Your task to perform on an android device: allow notifications from all sites in the chrome app Image 0: 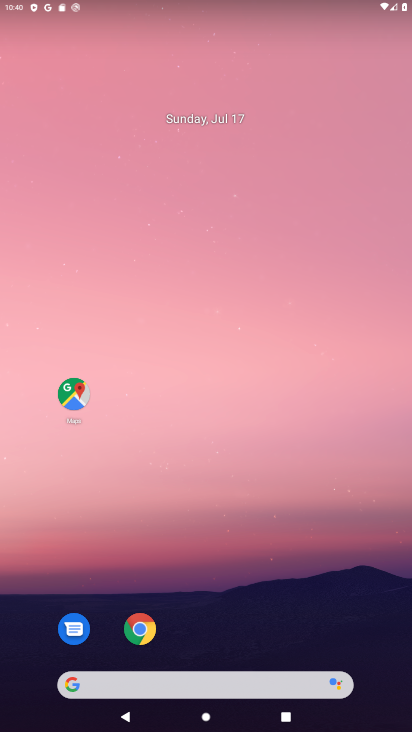
Step 0: drag from (236, 664) to (193, 191)
Your task to perform on an android device: allow notifications from all sites in the chrome app Image 1: 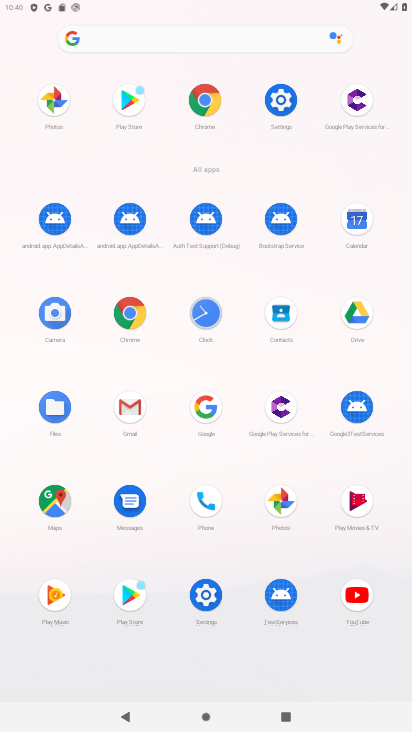
Step 1: click (203, 99)
Your task to perform on an android device: allow notifications from all sites in the chrome app Image 2: 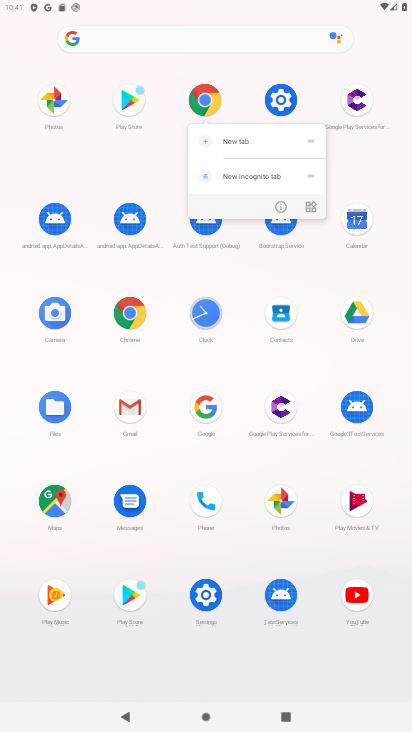
Step 2: click (207, 94)
Your task to perform on an android device: allow notifications from all sites in the chrome app Image 3: 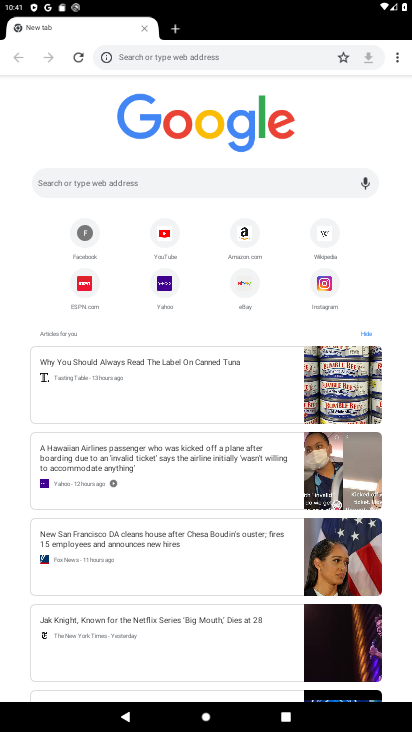
Step 3: click (393, 56)
Your task to perform on an android device: allow notifications from all sites in the chrome app Image 4: 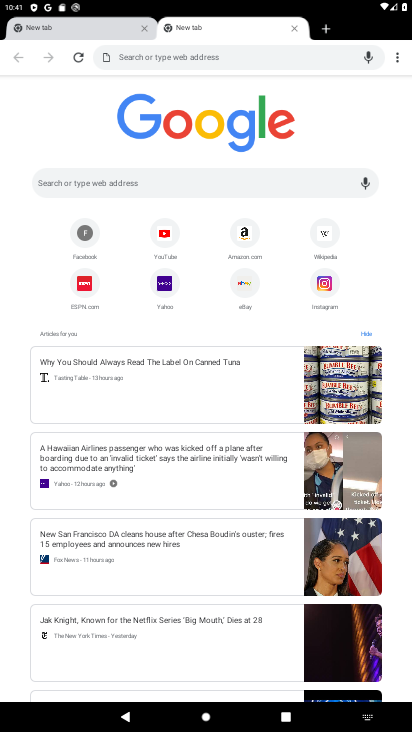
Step 4: click (396, 52)
Your task to perform on an android device: allow notifications from all sites in the chrome app Image 5: 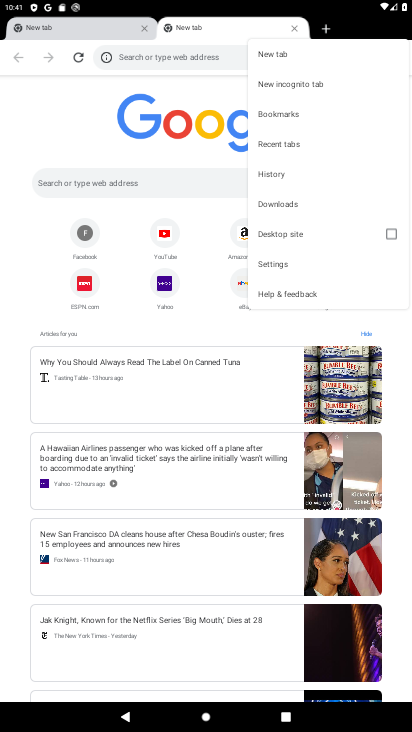
Step 5: click (282, 267)
Your task to perform on an android device: allow notifications from all sites in the chrome app Image 6: 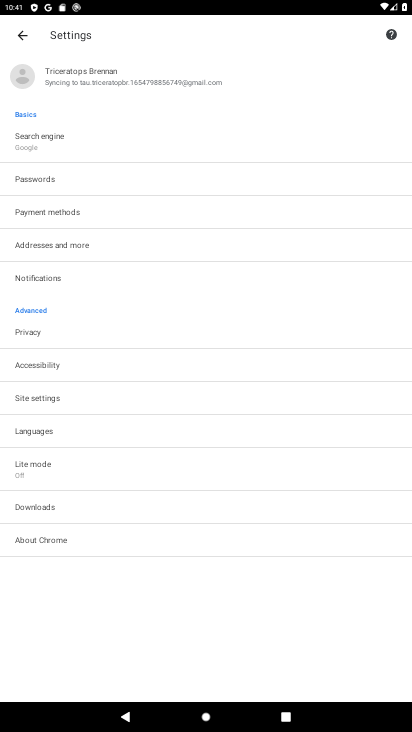
Step 6: click (29, 392)
Your task to perform on an android device: allow notifications from all sites in the chrome app Image 7: 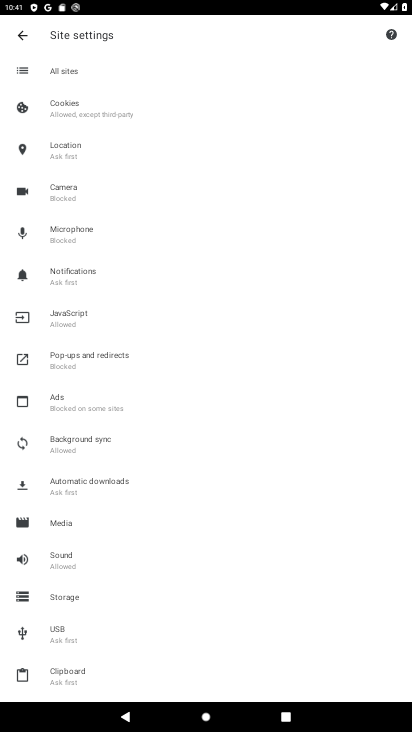
Step 7: click (66, 229)
Your task to perform on an android device: allow notifications from all sites in the chrome app Image 8: 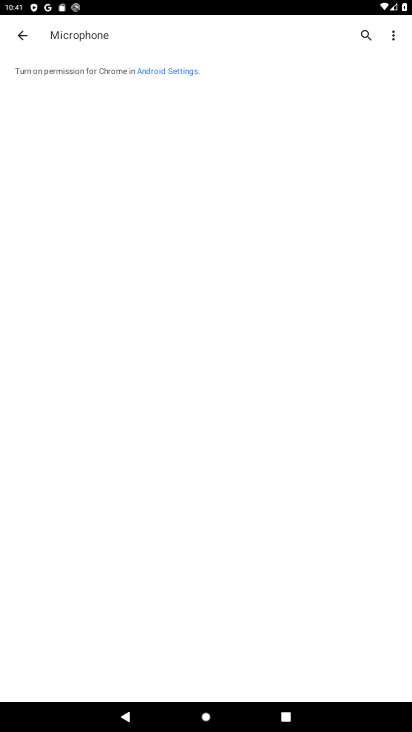
Step 8: click (8, 19)
Your task to perform on an android device: allow notifications from all sites in the chrome app Image 9: 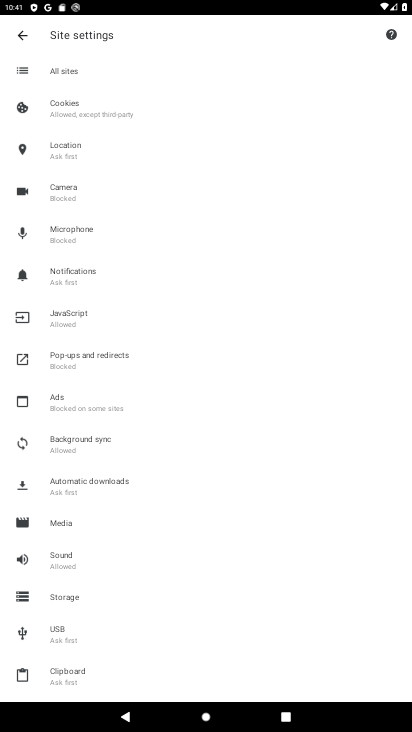
Step 9: click (83, 279)
Your task to perform on an android device: allow notifications from all sites in the chrome app Image 10: 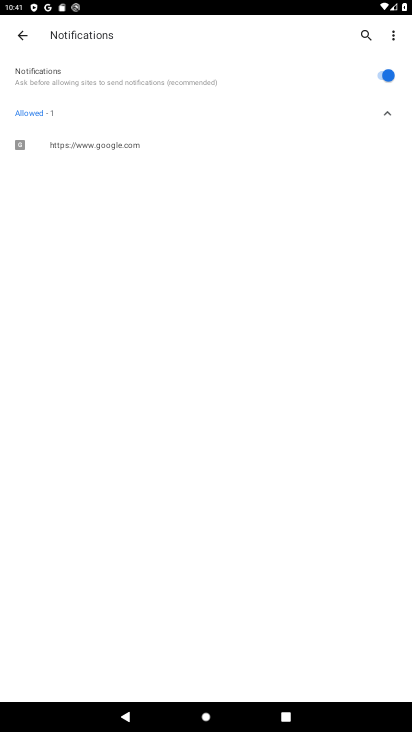
Step 10: task complete